Your task to perform on an android device: Open Youtube and go to "Your channel" Image 0: 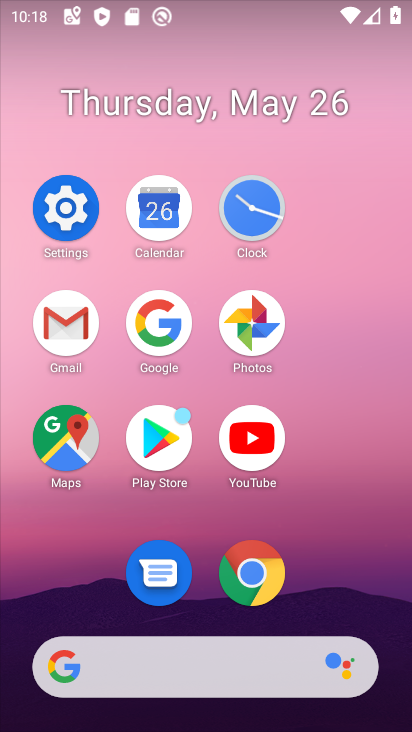
Step 0: click (247, 442)
Your task to perform on an android device: Open Youtube and go to "Your channel" Image 1: 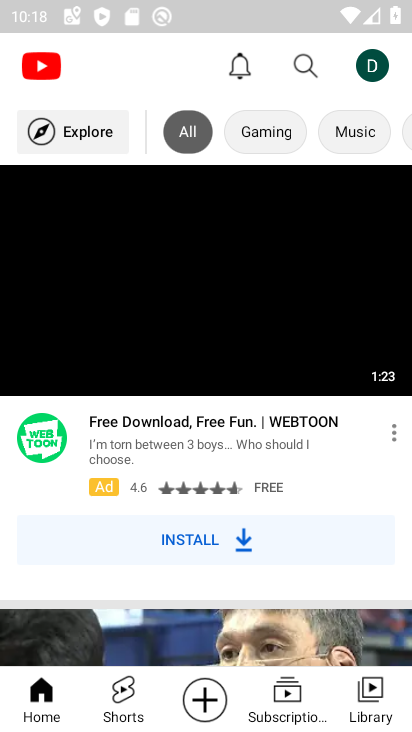
Step 1: click (367, 64)
Your task to perform on an android device: Open Youtube and go to "Your channel" Image 2: 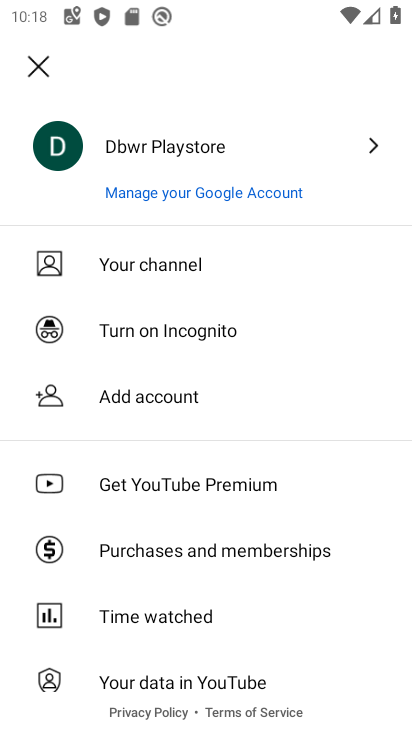
Step 2: click (192, 265)
Your task to perform on an android device: Open Youtube and go to "Your channel" Image 3: 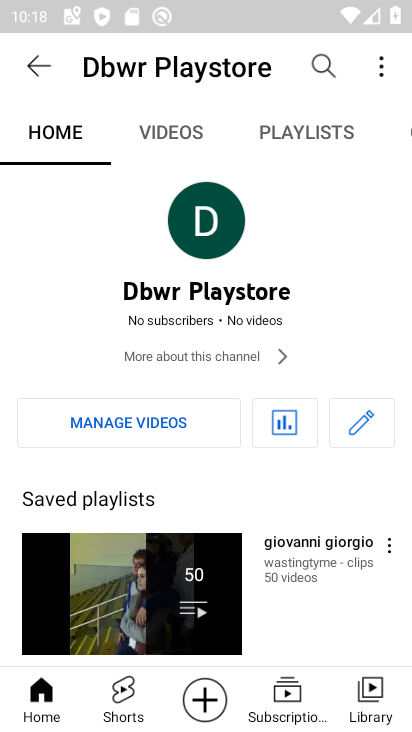
Step 3: task complete